Your task to perform on an android device: Open Yahoo.com Image 0: 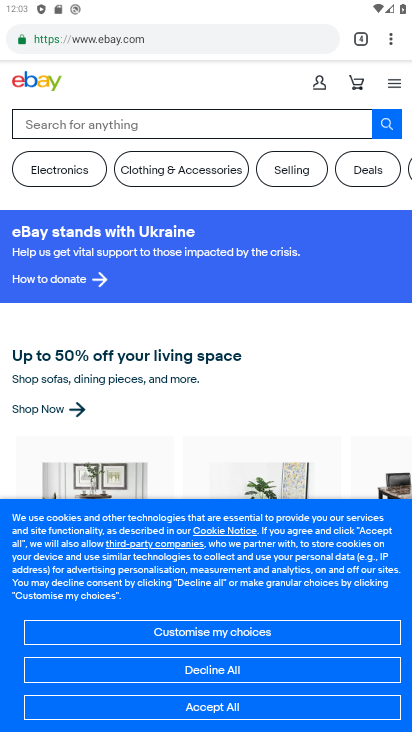
Step 0: click (391, 44)
Your task to perform on an android device: Open Yahoo.com Image 1: 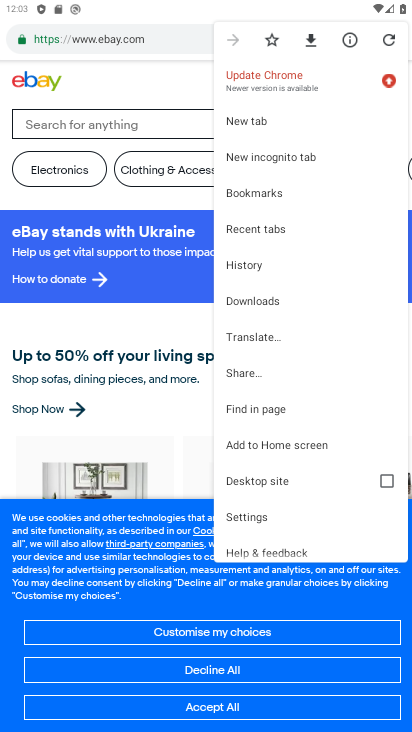
Step 1: click (248, 120)
Your task to perform on an android device: Open Yahoo.com Image 2: 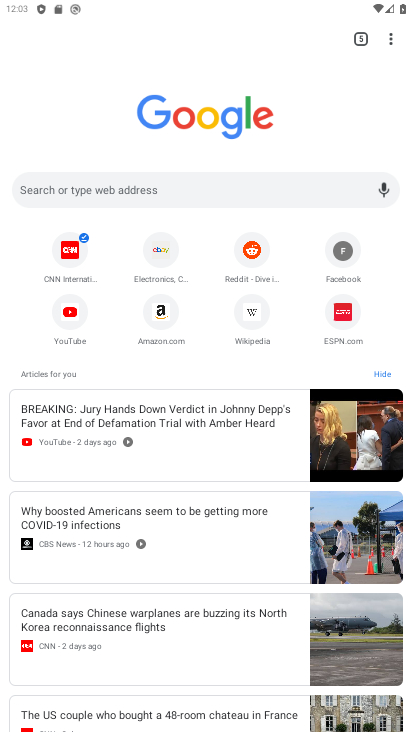
Step 2: click (205, 189)
Your task to perform on an android device: Open Yahoo.com Image 3: 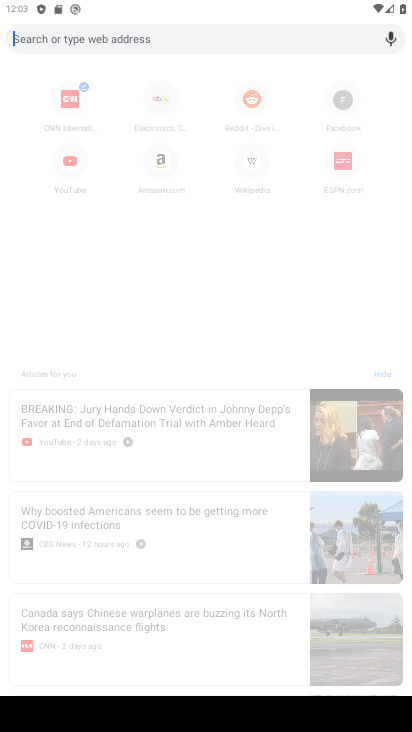
Step 3: type "Yahoo.com"
Your task to perform on an android device: Open Yahoo.com Image 4: 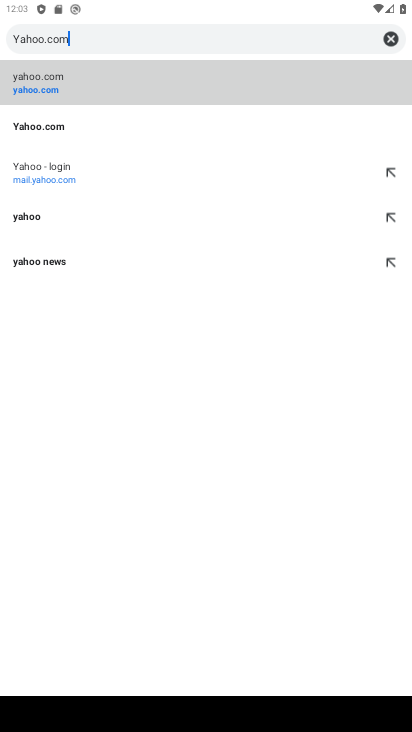
Step 4: type ""
Your task to perform on an android device: Open Yahoo.com Image 5: 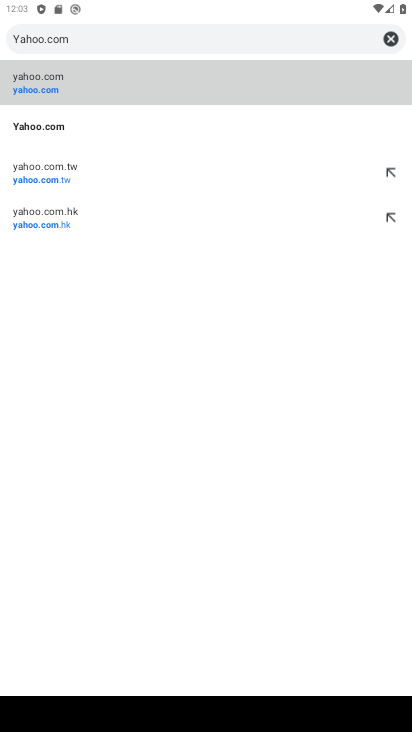
Step 5: click (31, 90)
Your task to perform on an android device: Open Yahoo.com Image 6: 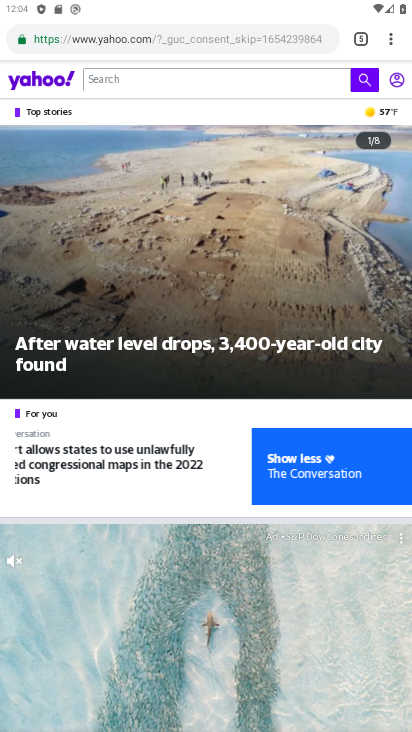
Step 6: task complete